Your task to perform on an android device: turn on data saver in the chrome app Image 0: 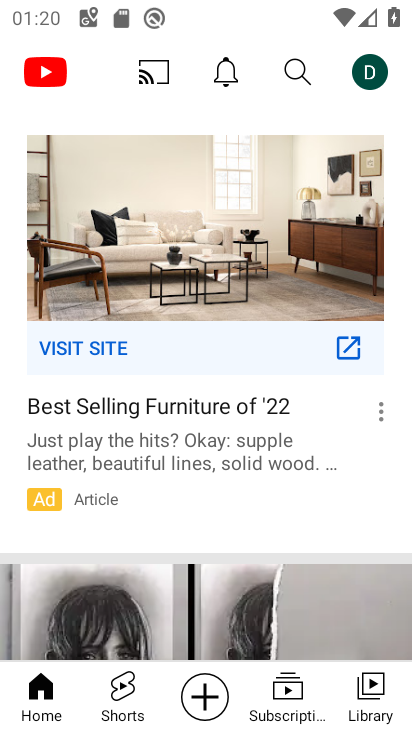
Step 0: press home button
Your task to perform on an android device: turn on data saver in the chrome app Image 1: 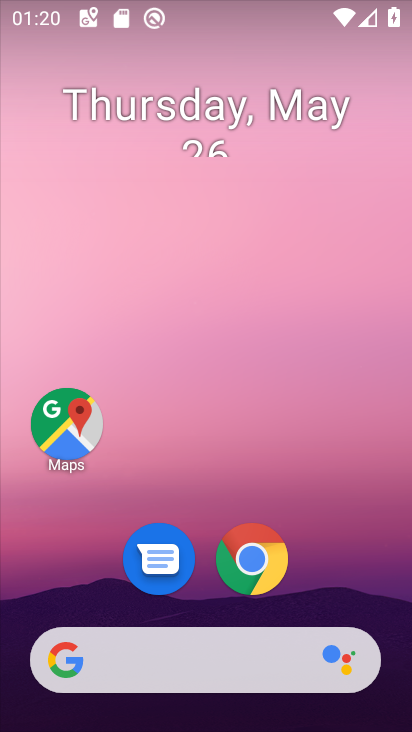
Step 1: click (254, 575)
Your task to perform on an android device: turn on data saver in the chrome app Image 2: 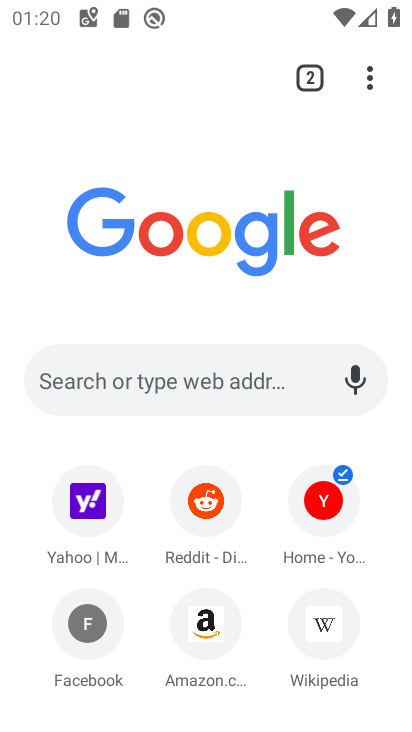
Step 2: click (373, 79)
Your task to perform on an android device: turn on data saver in the chrome app Image 3: 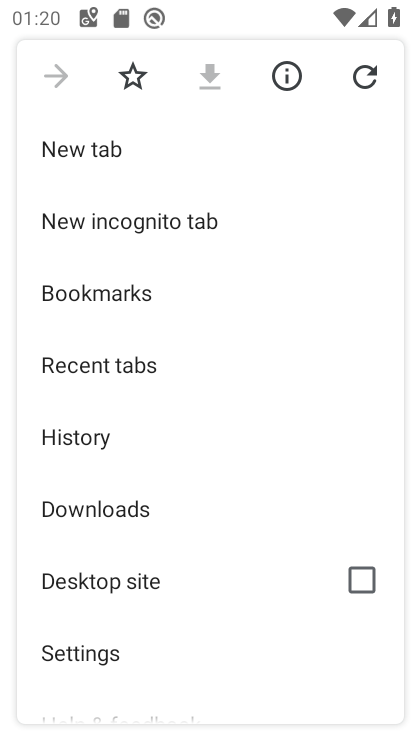
Step 3: click (91, 648)
Your task to perform on an android device: turn on data saver in the chrome app Image 4: 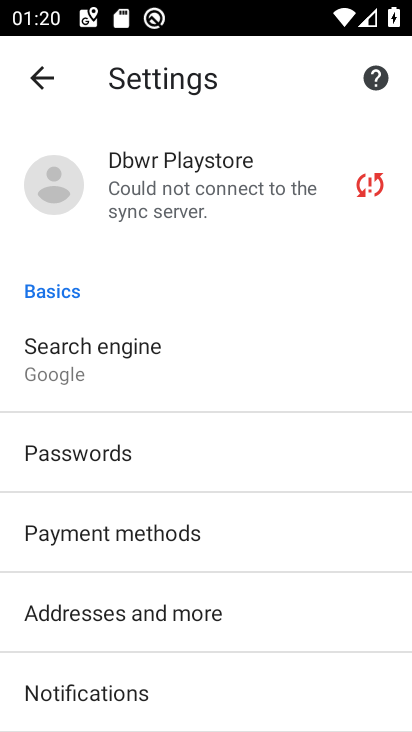
Step 4: drag from (295, 676) to (303, 76)
Your task to perform on an android device: turn on data saver in the chrome app Image 5: 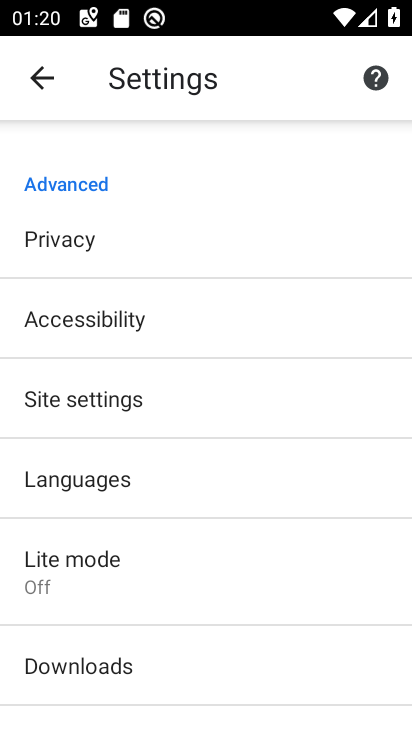
Step 5: click (117, 561)
Your task to perform on an android device: turn on data saver in the chrome app Image 6: 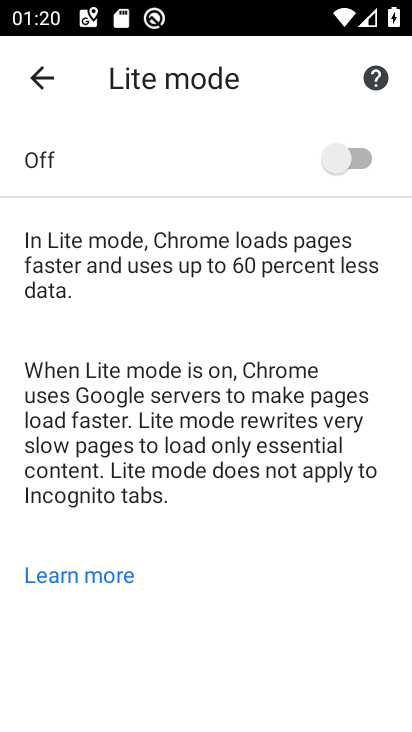
Step 6: click (334, 155)
Your task to perform on an android device: turn on data saver in the chrome app Image 7: 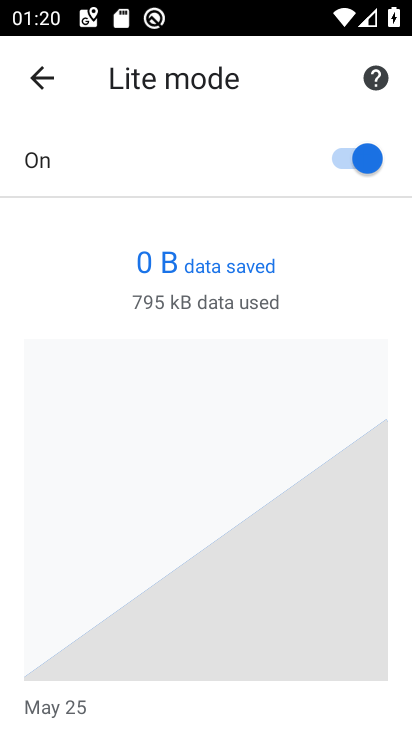
Step 7: task complete